Your task to perform on an android device: Show me productivity apps on the Play Store Image 0: 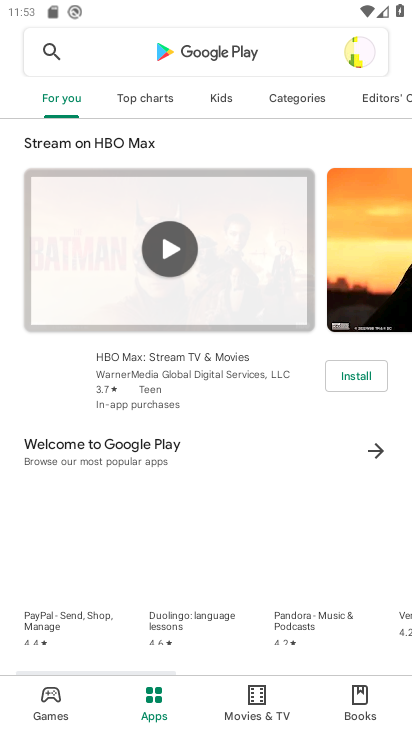
Step 0: press home button
Your task to perform on an android device: Show me productivity apps on the Play Store Image 1: 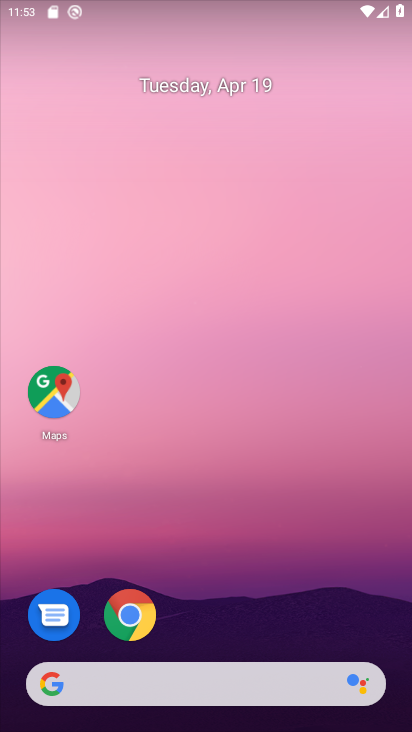
Step 1: drag from (282, 464) to (284, 138)
Your task to perform on an android device: Show me productivity apps on the Play Store Image 2: 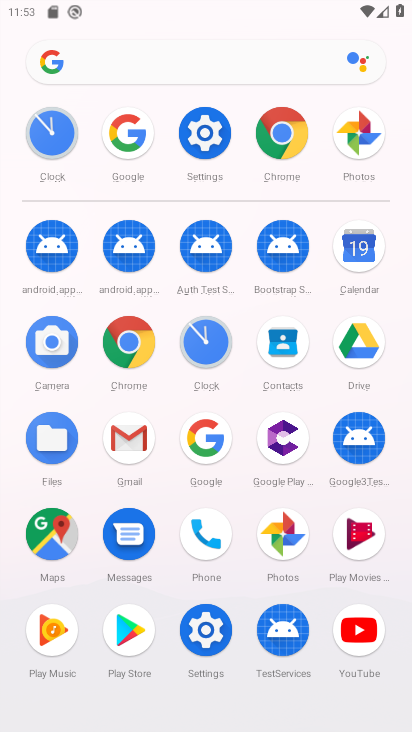
Step 2: click (127, 624)
Your task to perform on an android device: Show me productivity apps on the Play Store Image 3: 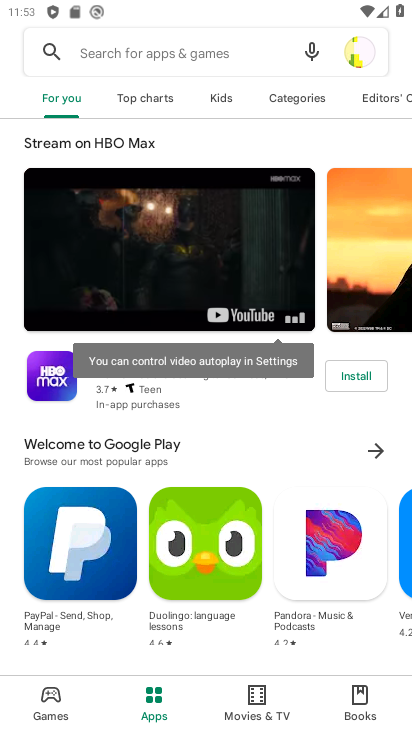
Step 3: task complete